Your task to perform on an android device: turn smart compose on in the gmail app Image 0: 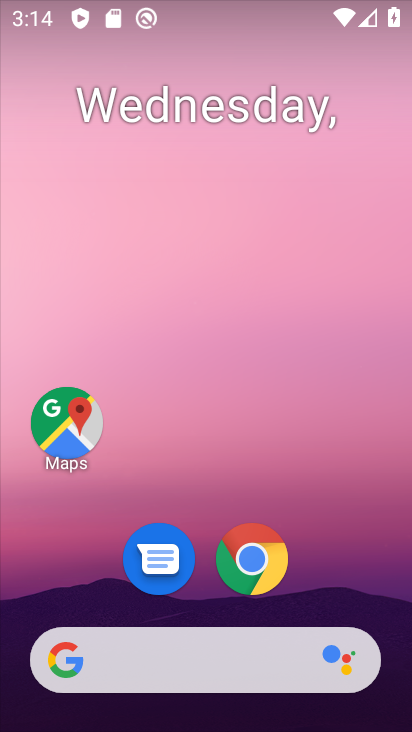
Step 0: drag from (66, 584) to (200, 129)
Your task to perform on an android device: turn smart compose on in the gmail app Image 1: 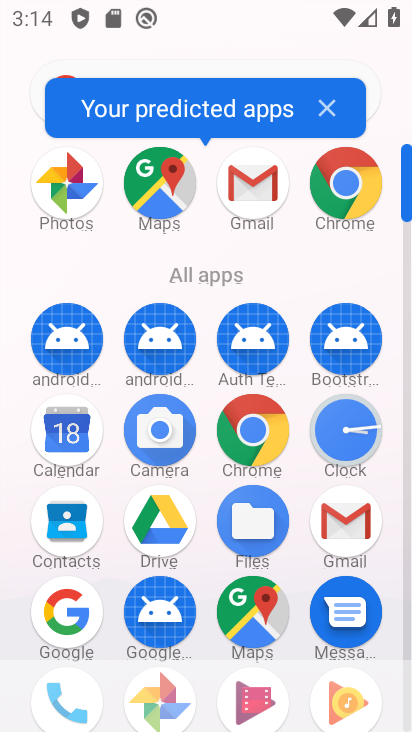
Step 1: drag from (152, 628) to (208, 370)
Your task to perform on an android device: turn smart compose on in the gmail app Image 2: 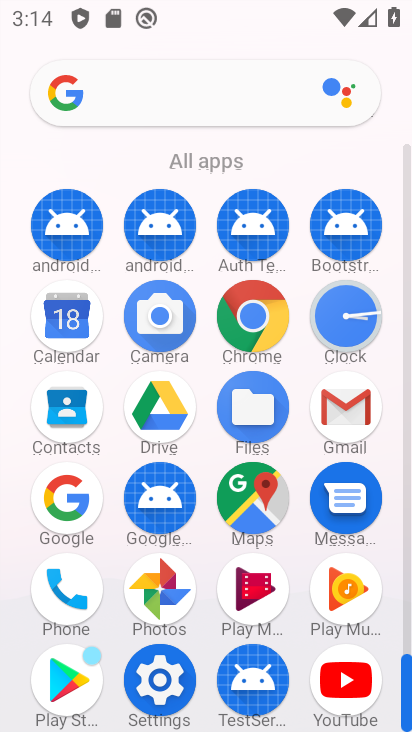
Step 2: click (350, 407)
Your task to perform on an android device: turn smart compose on in the gmail app Image 3: 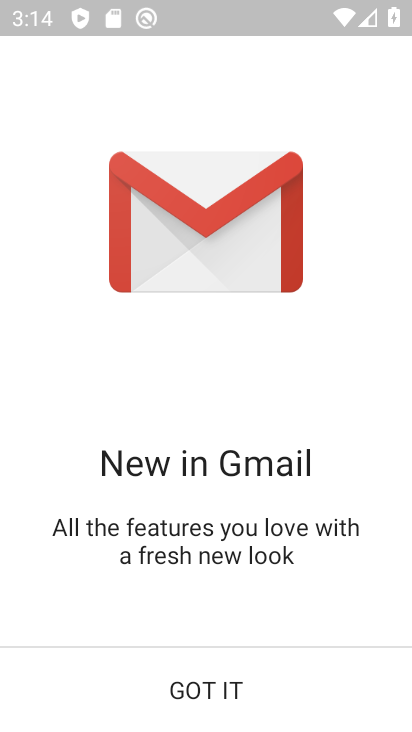
Step 3: click (235, 670)
Your task to perform on an android device: turn smart compose on in the gmail app Image 4: 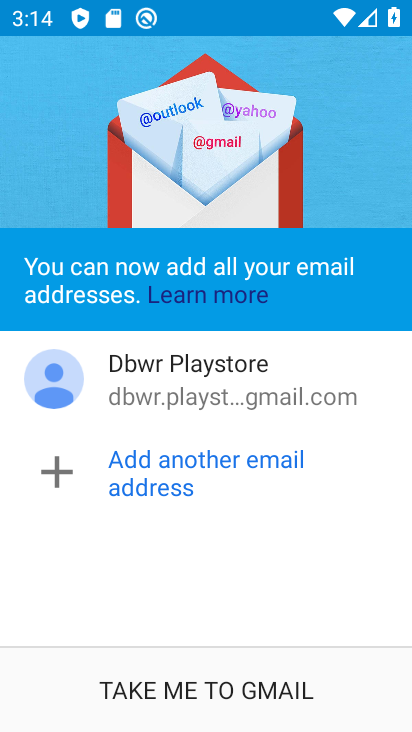
Step 4: click (249, 683)
Your task to perform on an android device: turn smart compose on in the gmail app Image 5: 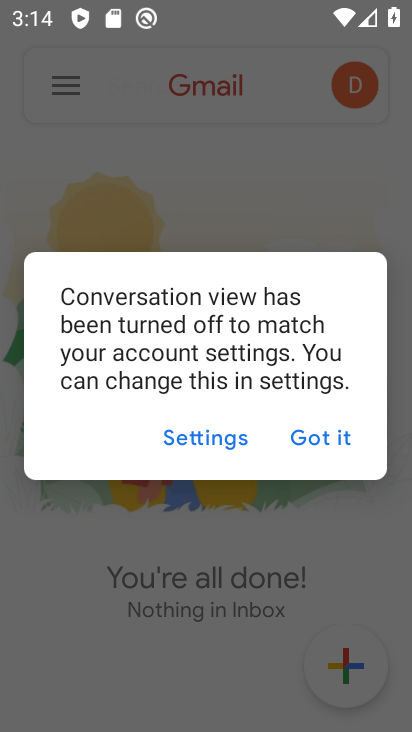
Step 5: click (347, 442)
Your task to perform on an android device: turn smart compose on in the gmail app Image 6: 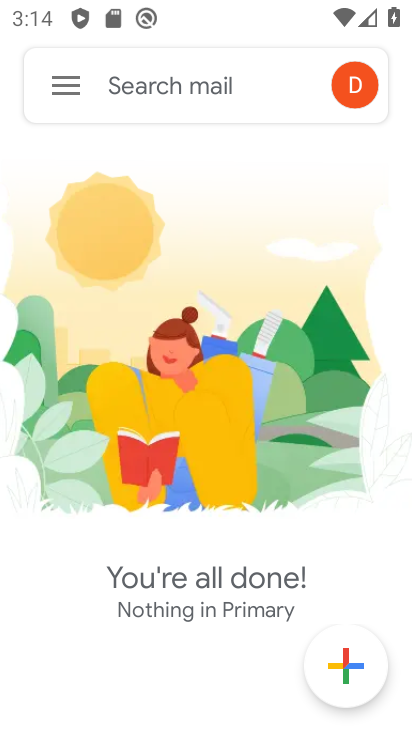
Step 6: click (81, 88)
Your task to perform on an android device: turn smart compose on in the gmail app Image 7: 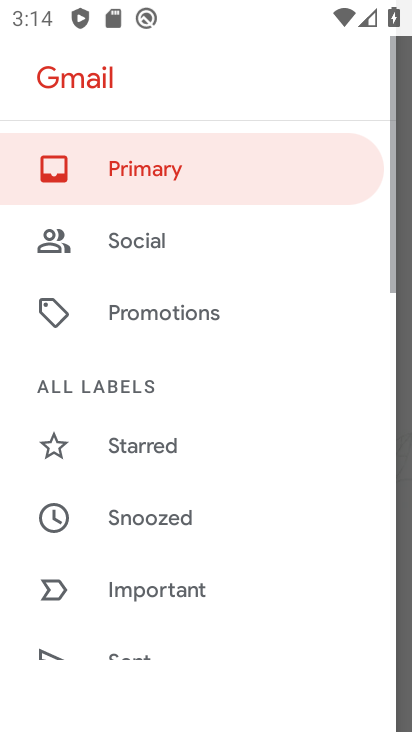
Step 7: drag from (140, 653) to (252, 160)
Your task to perform on an android device: turn smart compose on in the gmail app Image 8: 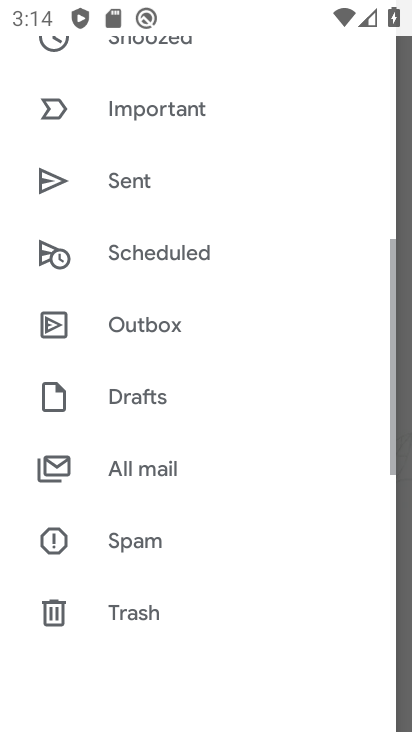
Step 8: drag from (120, 487) to (225, 193)
Your task to perform on an android device: turn smart compose on in the gmail app Image 9: 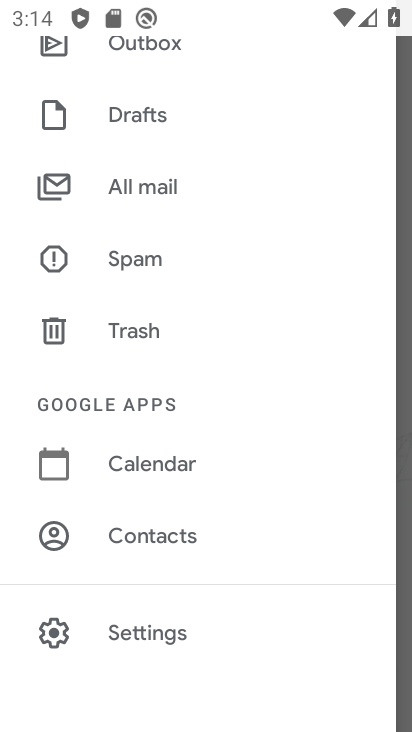
Step 9: click (157, 629)
Your task to perform on an android device: turn smart compose on in the gmail app Image 10: 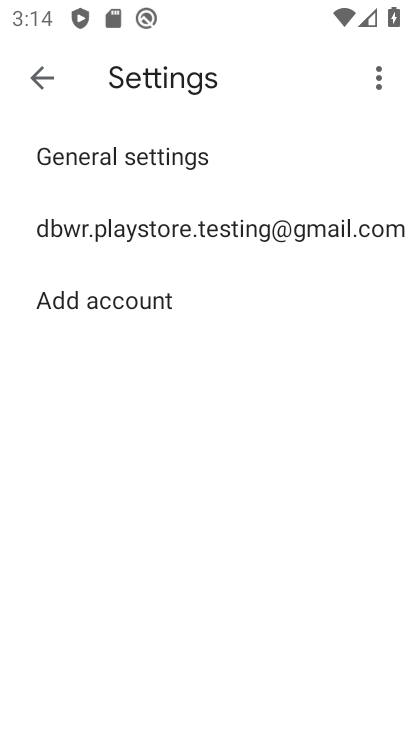
Step 10: click (292, 247)
Your task to perform on an android device: turn smart compose on in the gmail app Image 11: 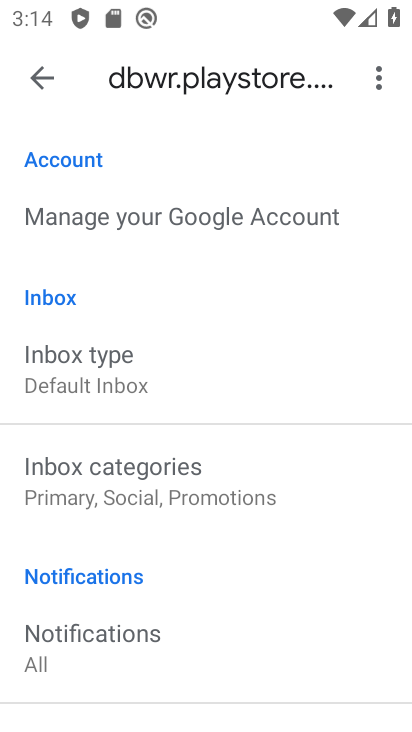
Step 11: task complete